Your task to perform on an android device: refresh tabs in the chrome app Image 0: 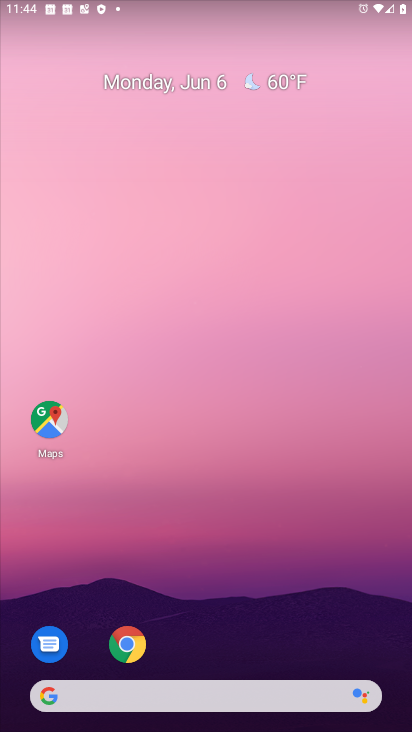
Step 0: click (126, 649)
Your task to perform on an android device: refresh tabs in the chrome app Image 1: 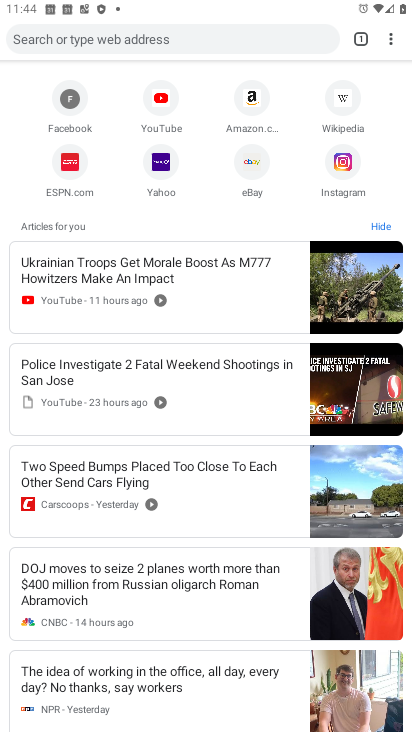
Step 1: click (400, 36)
Your task to perform on an android device: refresh tabs in the chrome app Image 2: 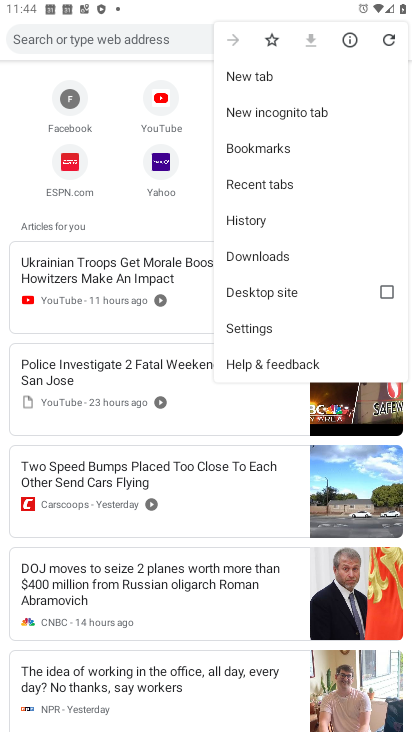
Step 2: click (387, 45)
Your task to perform on an android device: refresh tabs in the chrome app Image 3: 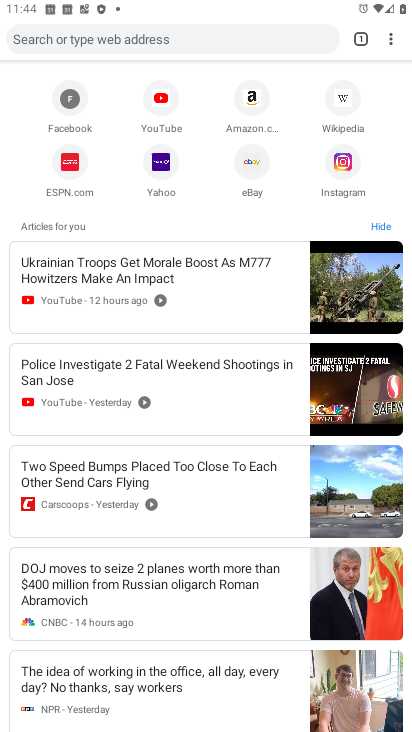
Step 3: task complete